Your task to perform on an android device: Go to location settings Image 0: 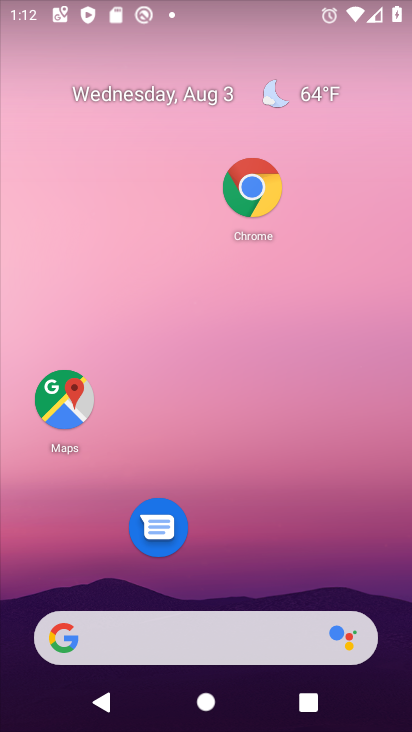
Step 0: drag from (222, 578) to (277, 117)
Your task to perform on an android device: Go to location settings Image 1: 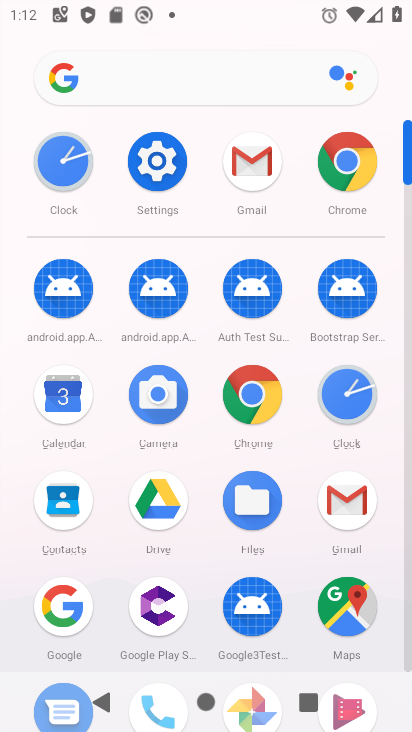
Step 1: click (164, 184)
Your task to perform on an android device: Go to location settings Image 2: 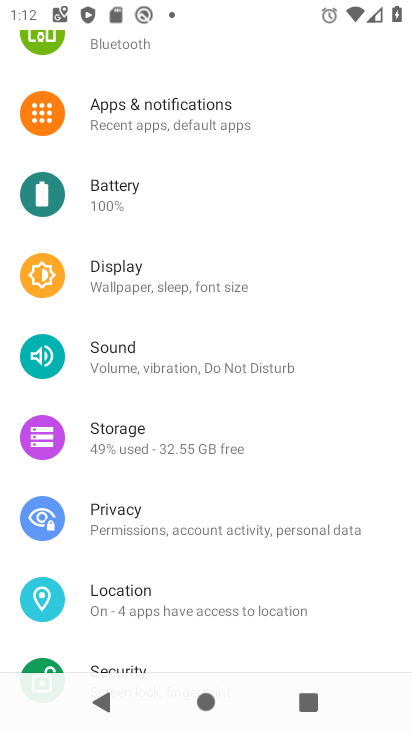
Step 2: click (145, 596)
Your task to perform on an android device: Go to location settings Image 3: 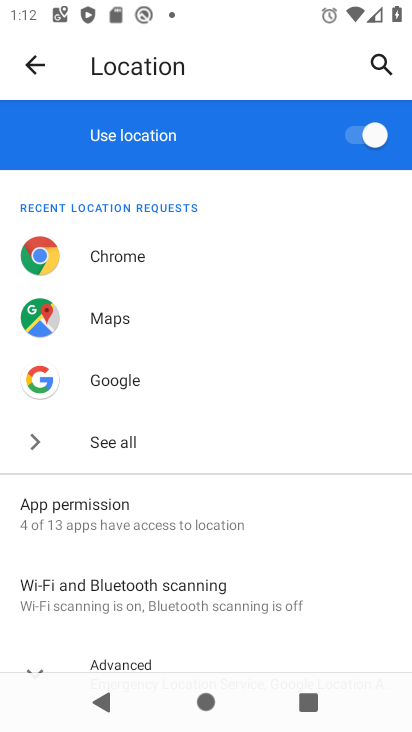
Step 3: task complete